Your task to perform on an android device: Open the calendar and show me this week's events? Image 0: 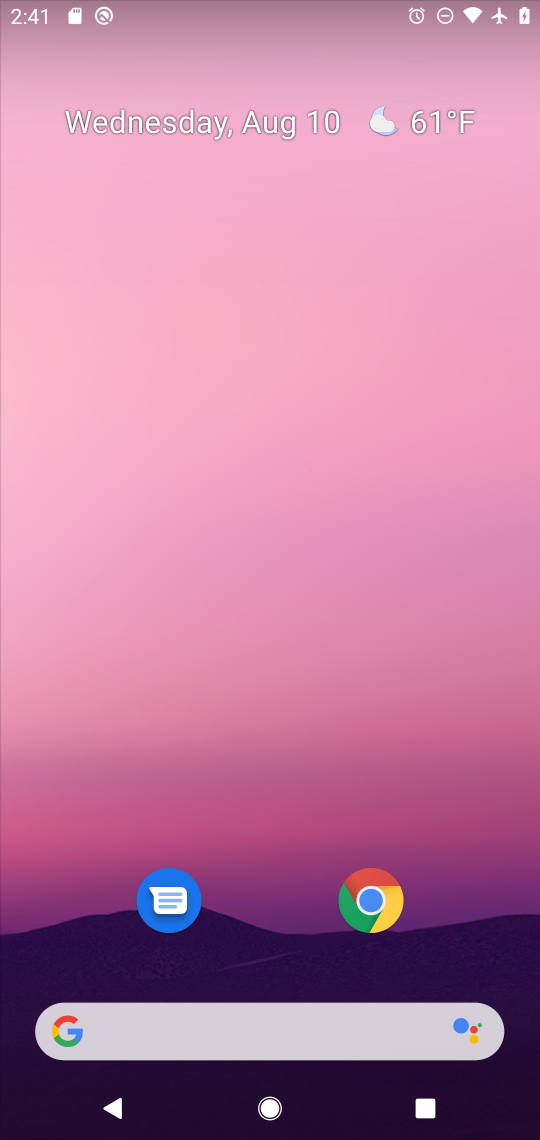
Step 0: drag from (284, 916) to (306, 24)
Your task to perform on an android device: Open the calendar and show me this week's events? Image 1: 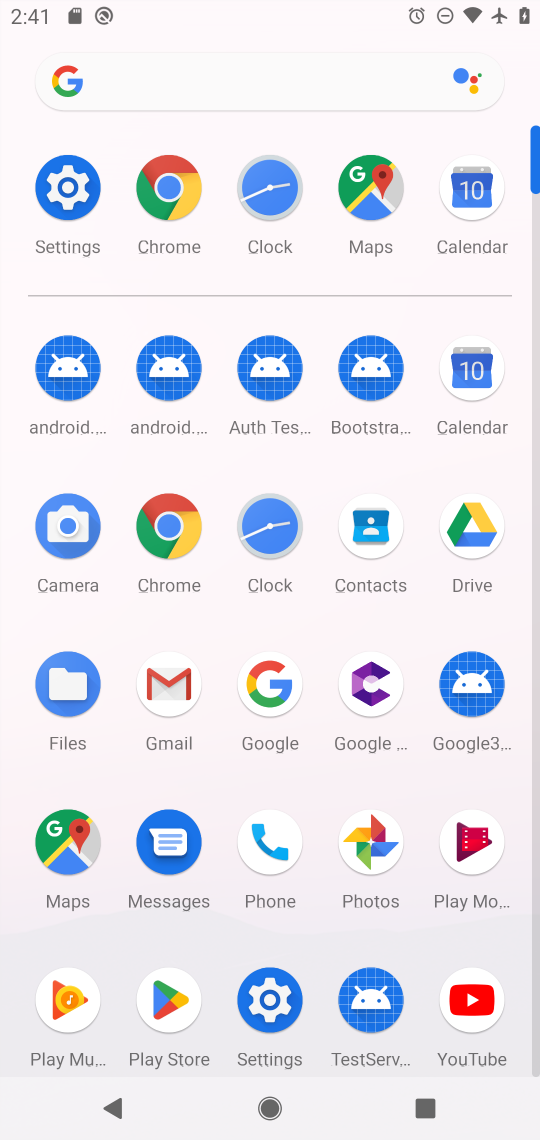
Step 1: click (478, 192)
Your task to perform on an android device: Open the calendar and show me this week's events? Image 2: 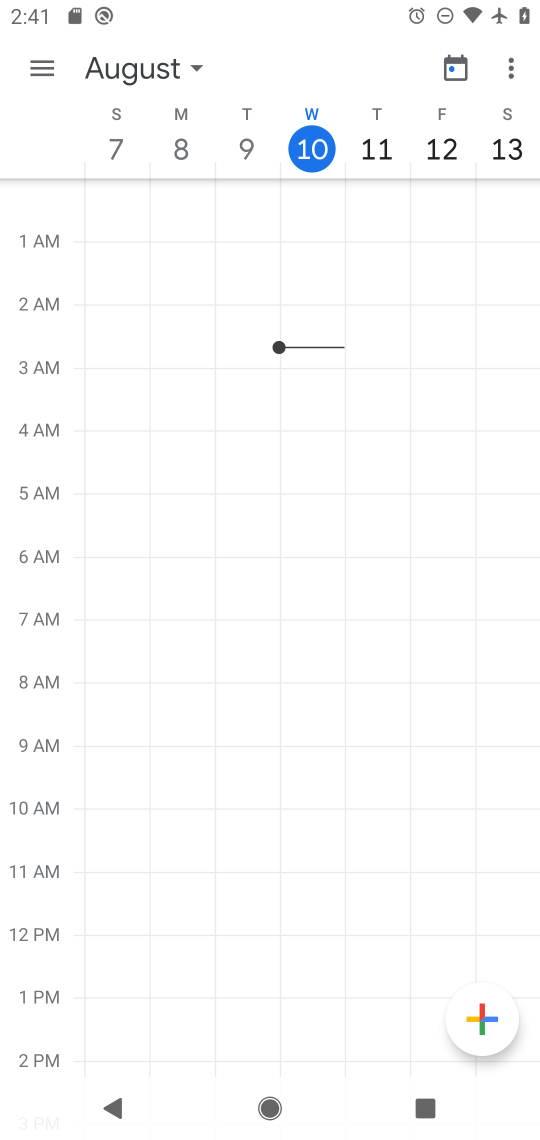
Step 2: task complete